Your task to perform on an android device: Open calendar and show me the third week of next month Image 0: 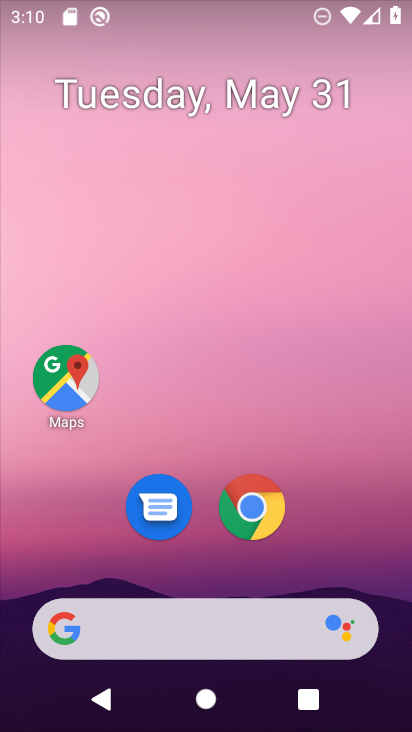
Step 0: drag from (158, 723) to (164, 55)
Your task to perform on an android device: Open calendar and show me the third week of next month Image 1: 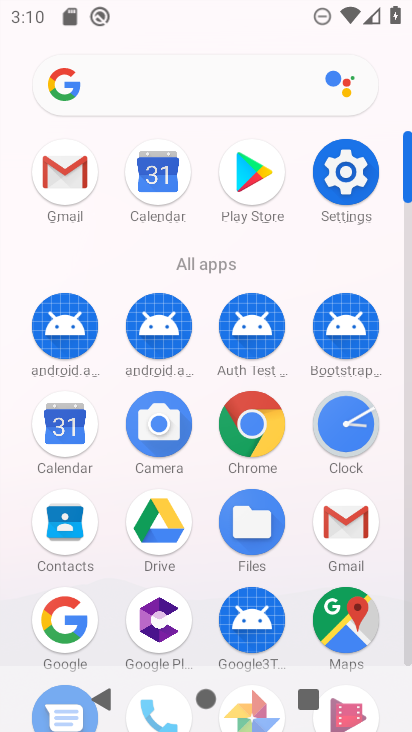
Step 1: click (68, 432)
Your task to perform on an android device: Open calendar and show me the third week of next month Image 2: 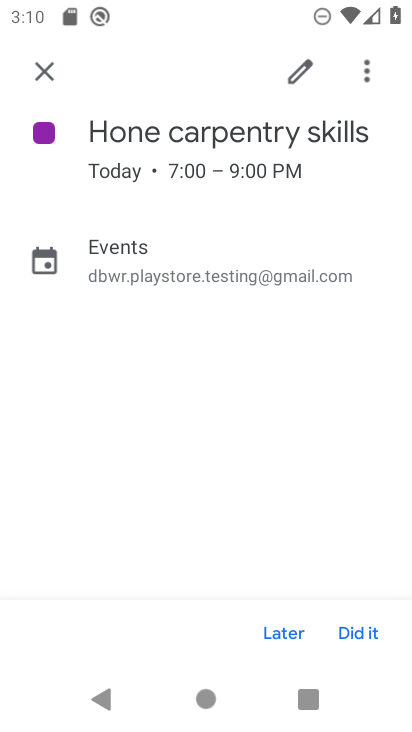
Step 2: click (38, 75)
Your task to perform on an android device: Open calendar and show me the third week of next month Image 3: 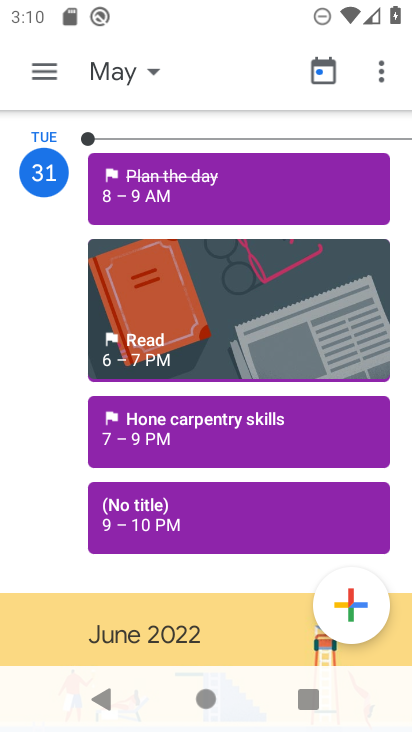
Step 3: click (132, 71)
Your task to perform on an android device: Open calendar and show me the third week of next month Image 4: 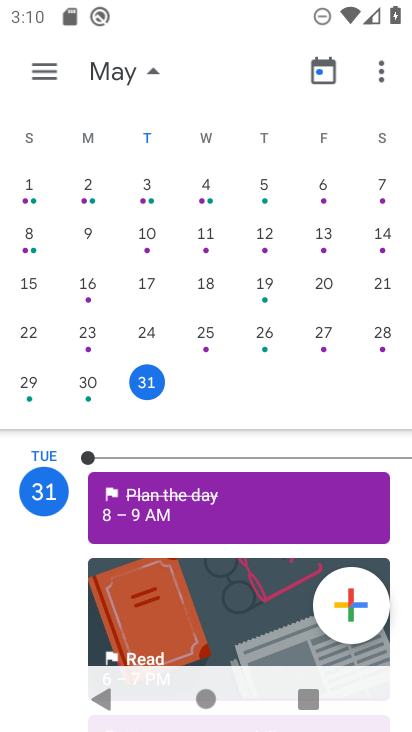
Step 4: drag from (393, 372) to (2, 359)
Your task to perform on an android device: Open calendar and show me the third week of next month Image 5: 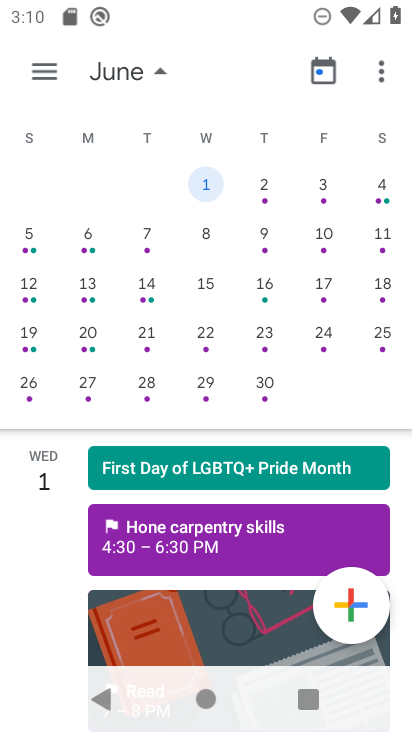
Step 5: click (35, 67)
Your task to perform on an android device: Open calendar and show me the third week of next month Image 6: 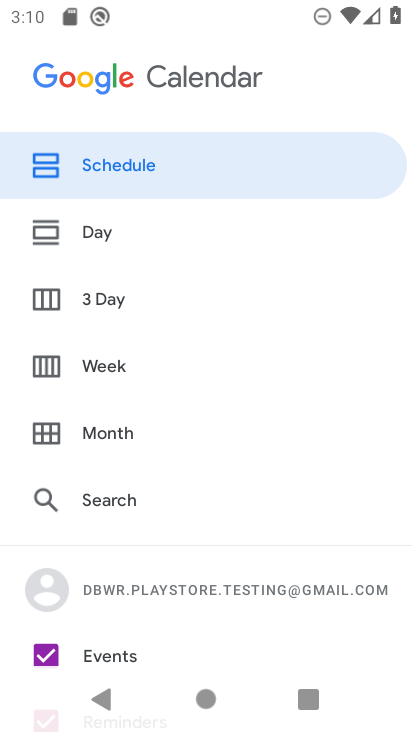
Step 6: click (93, 375)
Your task to perform on an android device: Open calendar and show me the third week of next month Image 7: 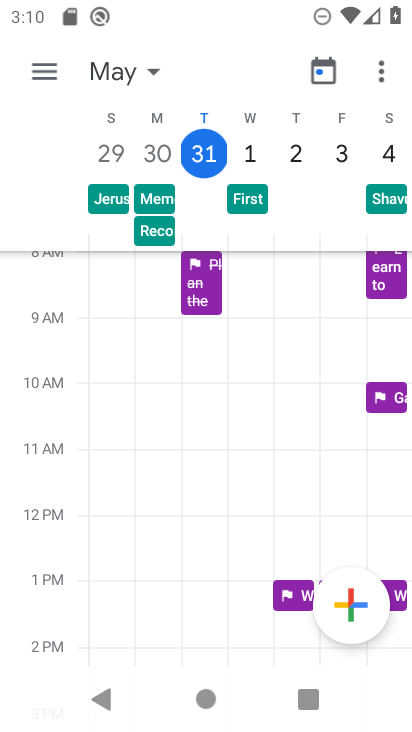
Step 7: task complete